Your task to perform on an android device: Show me the alarms in the clock app Image 0: 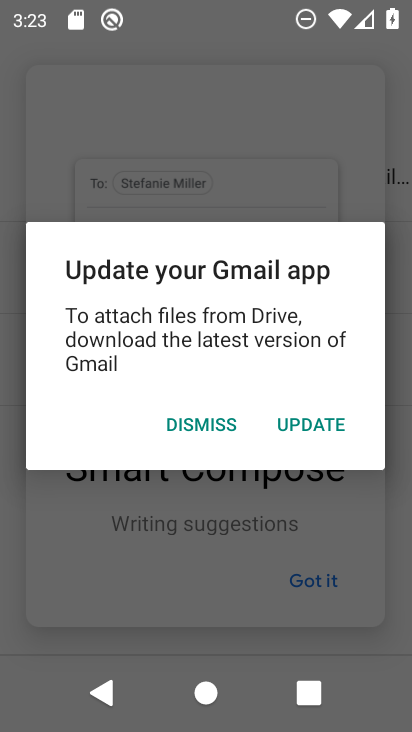
Step 0: press home button
Your task to perform on an android device: Show me the alarms in the clock app Image 1: 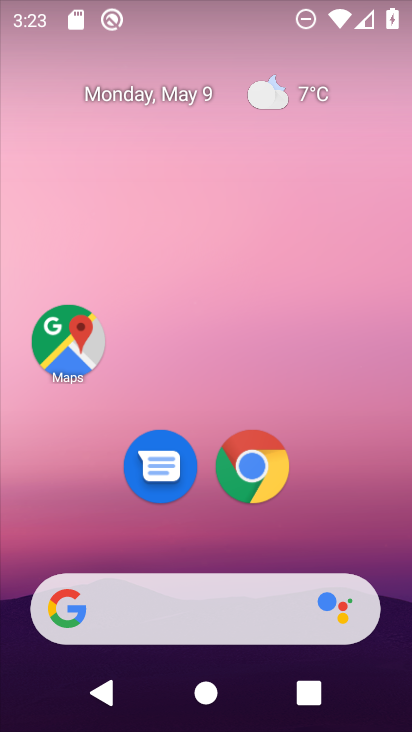
Step 1: drag from (236, 549) to (187, 148)
Your task to perform on an android device: Show me the alarms in the clock app Image 2: 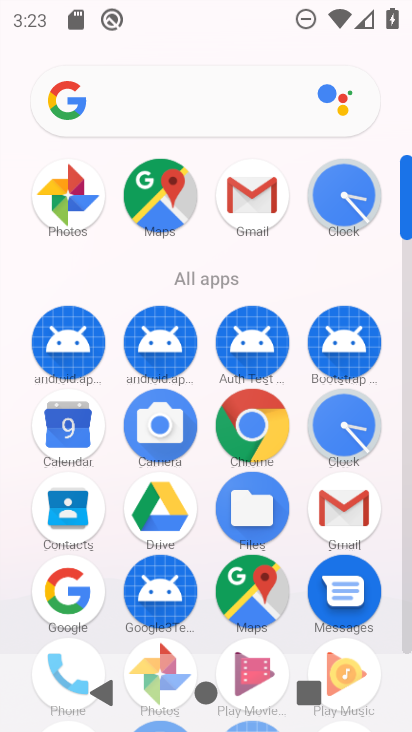
Step 2: click (345, 427)
Your task to perform on an android device: Show me the alarms in the clock app Image 3: 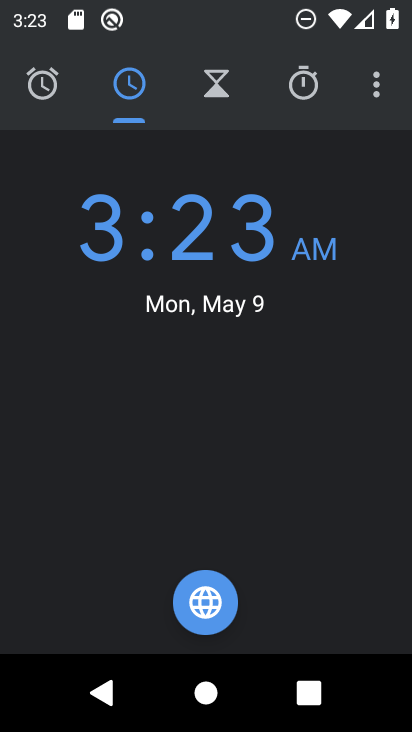
Step 3: click (45, 108)
Your task to perform on an android device: Show me the alarms in the clock app Image 4: 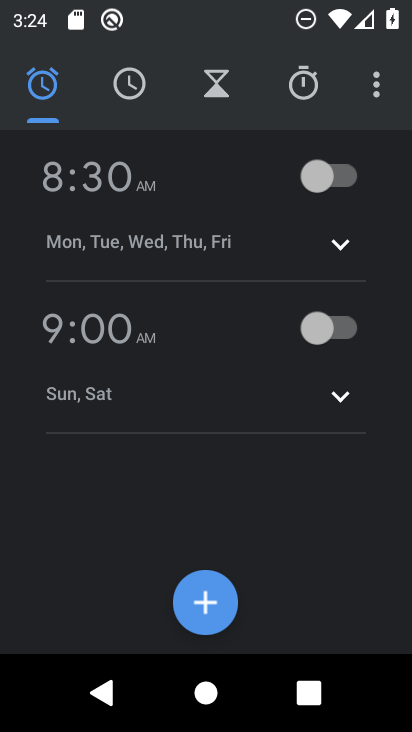
Step 4: task complete